Your task to perform on an android device: manage bookmarks in the chrome app Image 0: 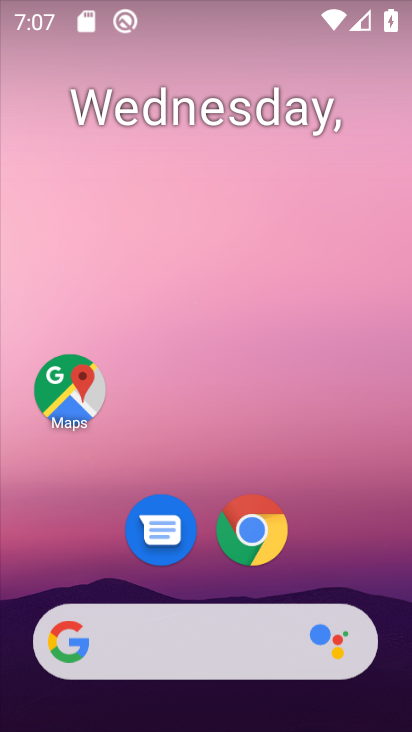
Step 0: drag from (370, 541) to (322, 69)
Your task to perform on an android device: manage bookmarks in the chrome app Image 1: 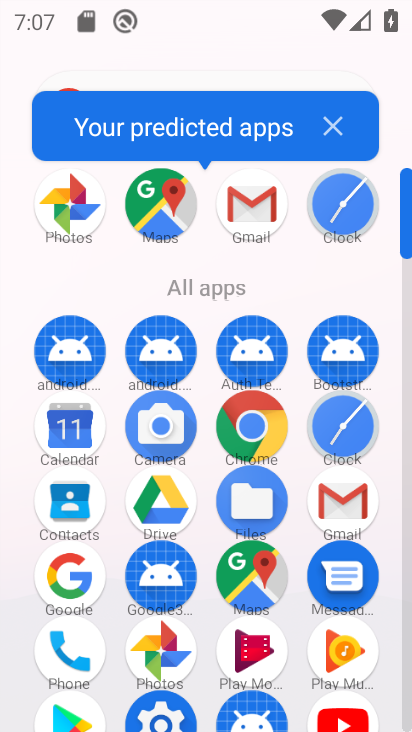
Step 1: click (261, 440)
Your task to perform on an android device: manage bookmarks in the chrome app Image 2: 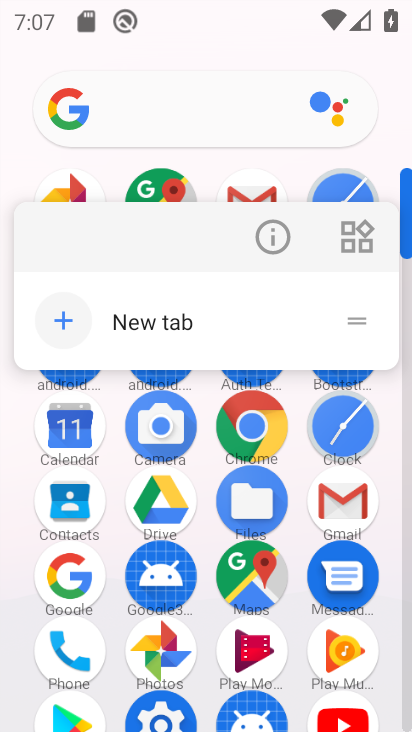
Step 2: click (261, 440)
Your task to perform on an android device: manage bookmarks in the chrome app Image 3: 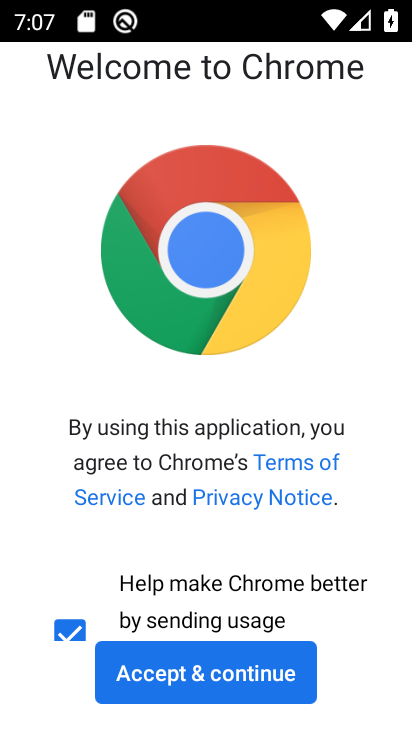
Step 3: click (217, 656)
Your task to perform on an android device: manage bookmarks in the chrome app Image 4: 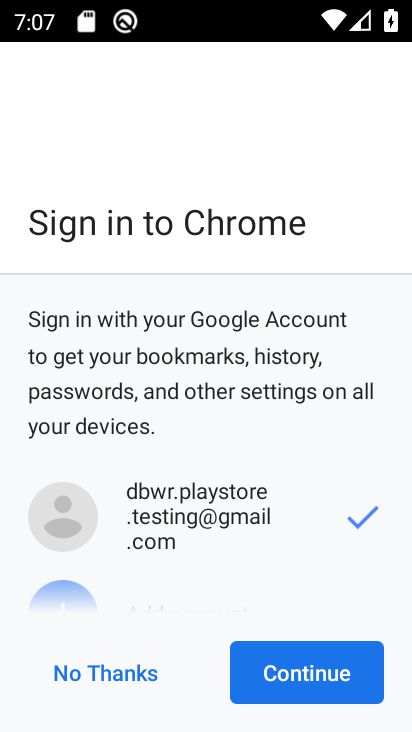
Step 4: click (321, 668)
Your task to perform on an android device: manage bookmarks in the chrome app Image 5: 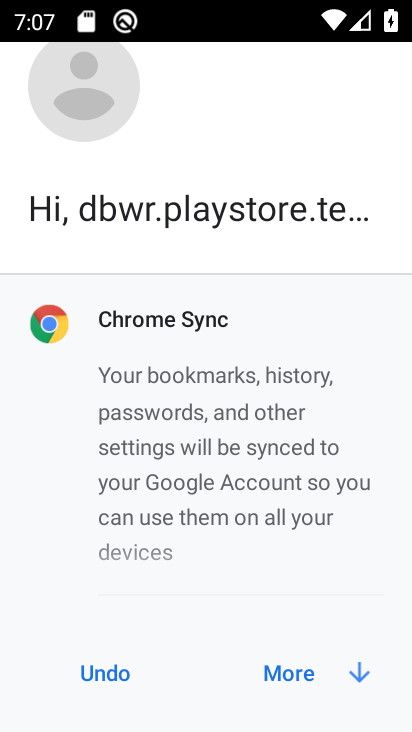
Step 5: click (321, 668)
Your task to perform on an android device: manage bookmarks in the chrome app Image 6: 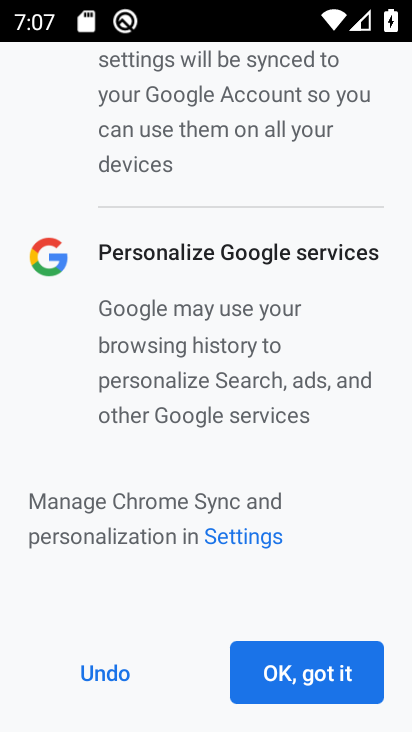
Step 6: click (321, 668)
Your task to perform on an android device: manage bookmarks in the chrome app Image 7: 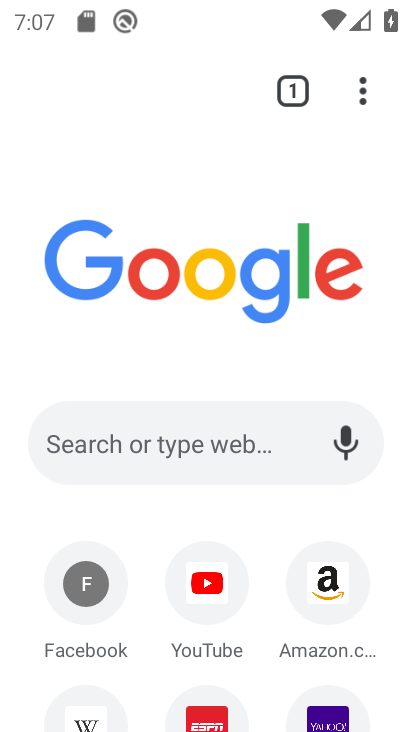
Step 7: click (358, 81)
Your task to perform on an android device: manage bookmarks in the chrome app Image 8: 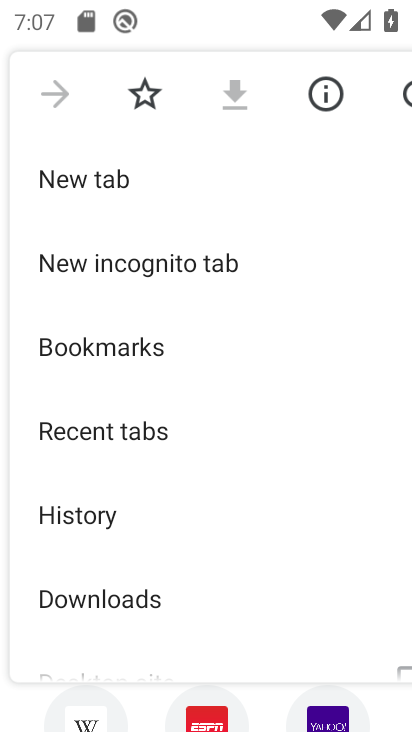
Step 8: click (164, 349)
Your task to perform on an android device: manage bookmarks in the chrome app Image 9: 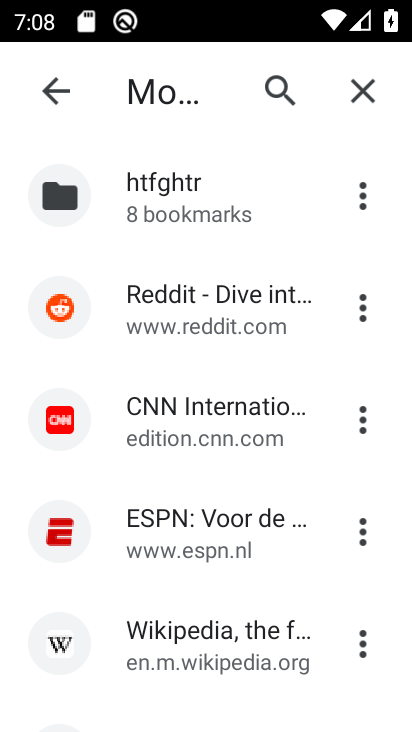
Step 9: task complete